Your task to perform on an android device: Do I have any events tomorrow? Image 0: 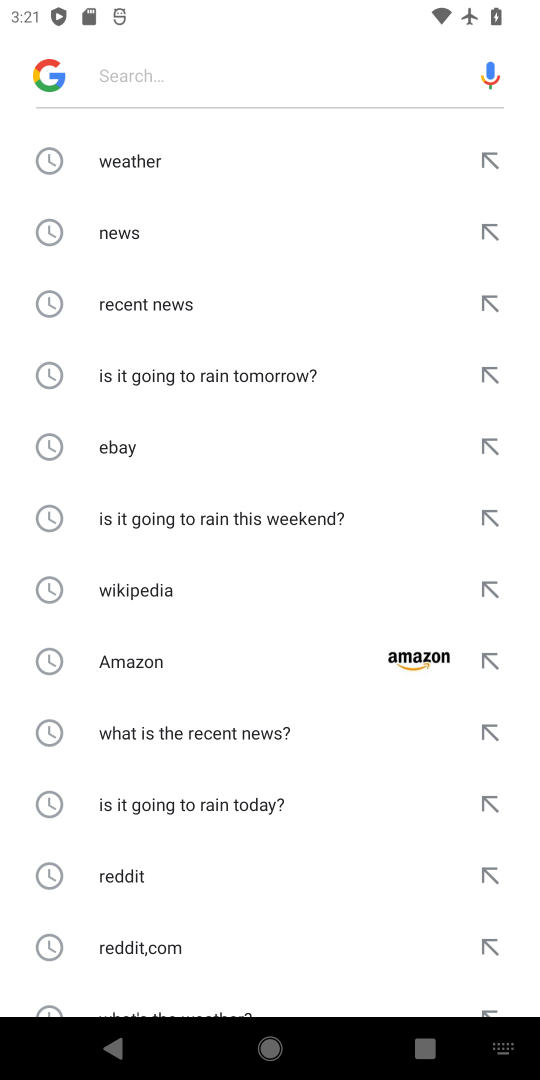
Step 0: press home button
Your task to perform on an android device: Do I have any events tomorrow? Image 1: 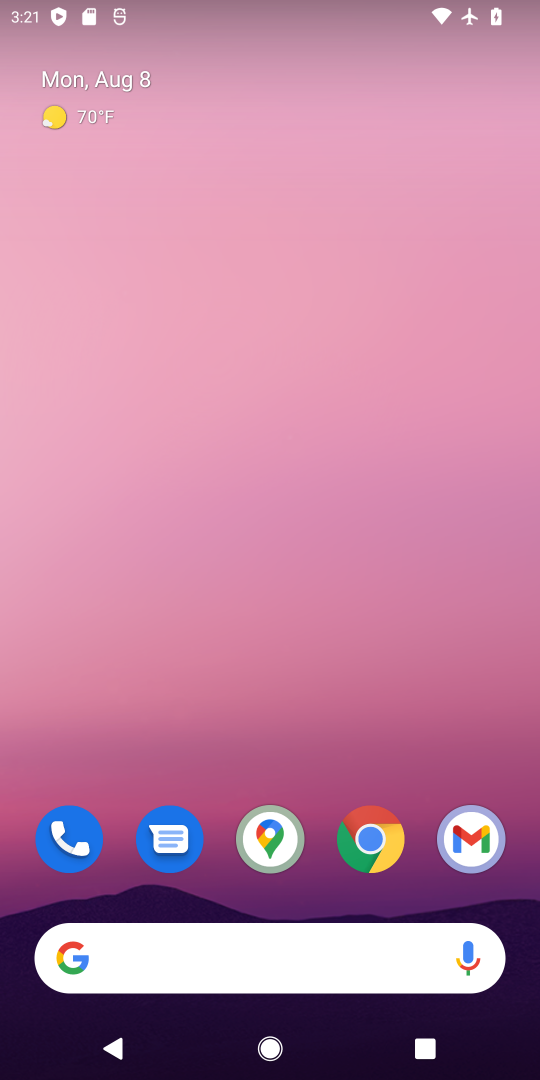
Step 1: drag from (411, 797) to (444, 325)
Your task to perform on an android device: Do I have any events tomorrow? Image 2: 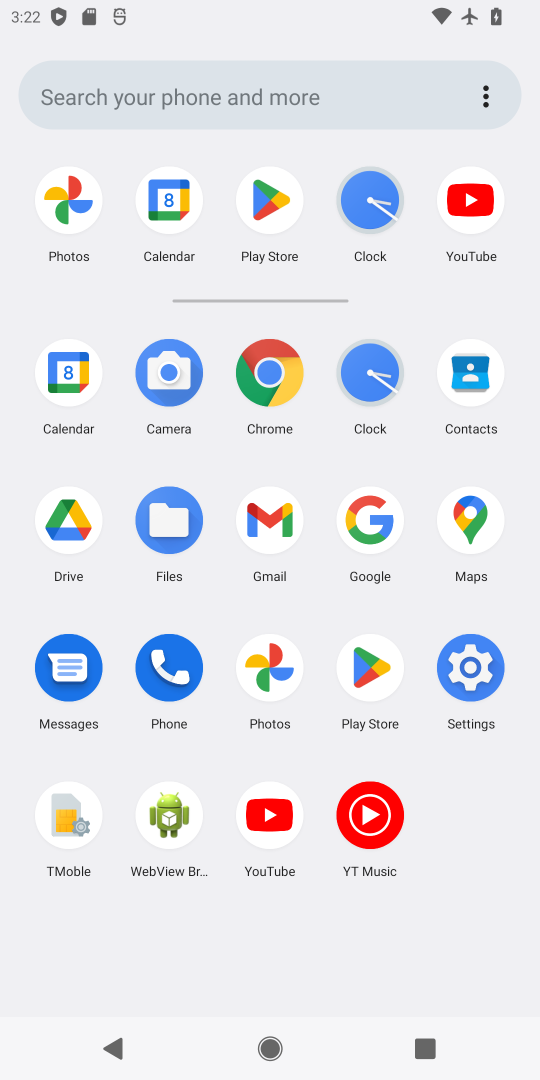
Step 2: click (69, 380)
Your task to perform on an android device: Do I have any events tomorrow? Image 3: 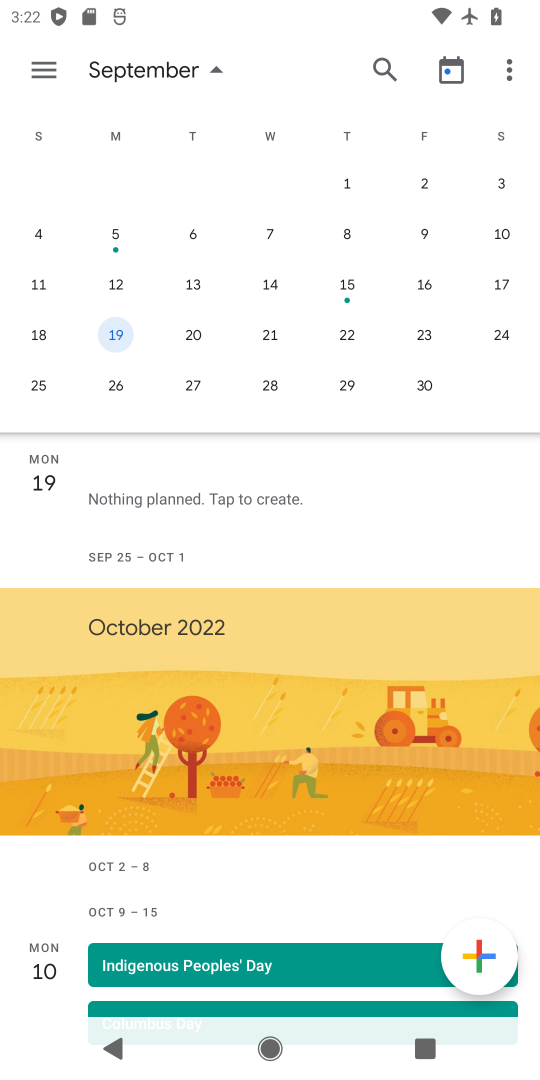
Step 3: drag from (278, 551) to (287, 328)
Your task to perform on an android device: Do I have any events tomorrow? Image 4: 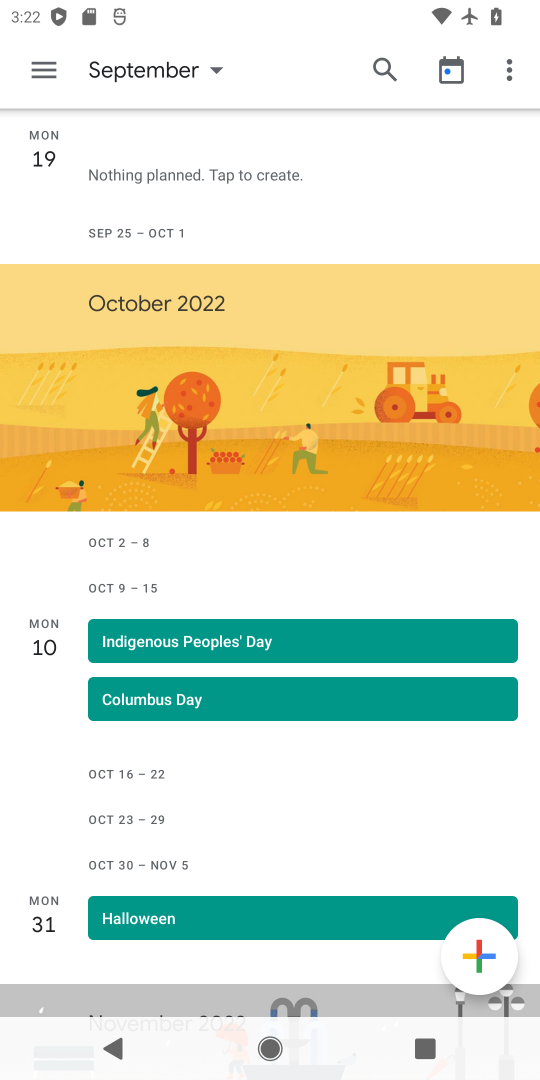
Step 4: drag from (290, 521) to (309, 306)
Your task to perform on an android device: Do I have any events tomorrow? Image 5: 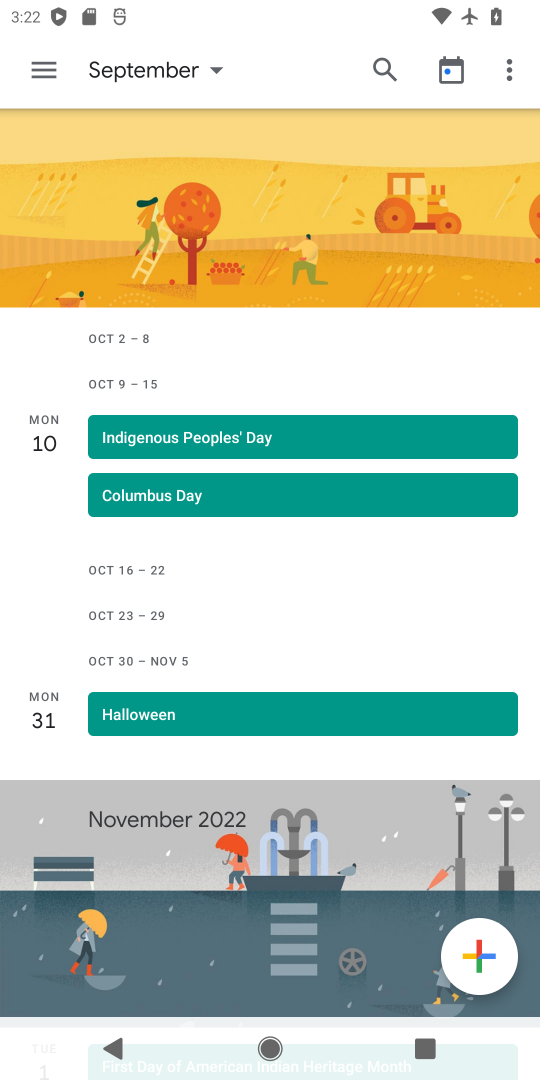
Step 5: drag from (297, 260) to (305, 509)
Your task to perform on an android device: Do I have any events tomorrow? Image 6: 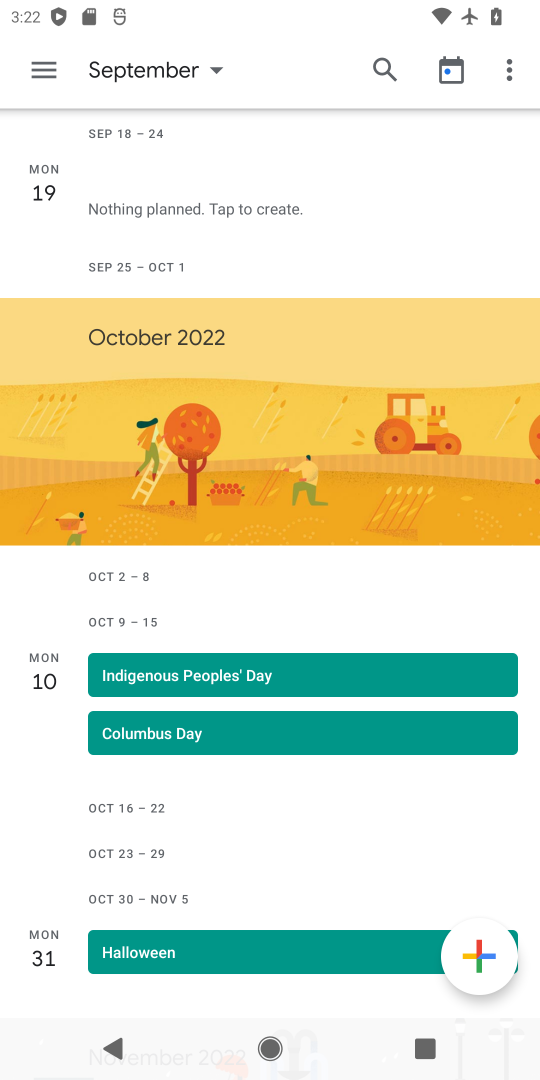
Step 6: drag from (296, 151) to (288, 436)
Your task to perform on an android device: Do I have any events tomorrow? Image 7: 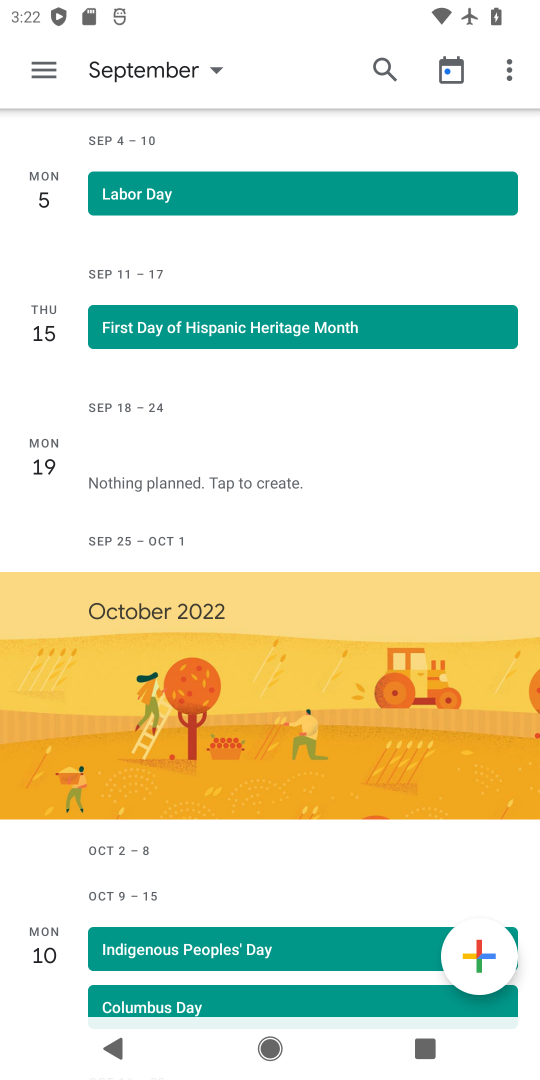
Step 7: drag from (266, 141) to (265, 387)
Your task to perform on an android device: Do I have any events tomorrow? Image 8: 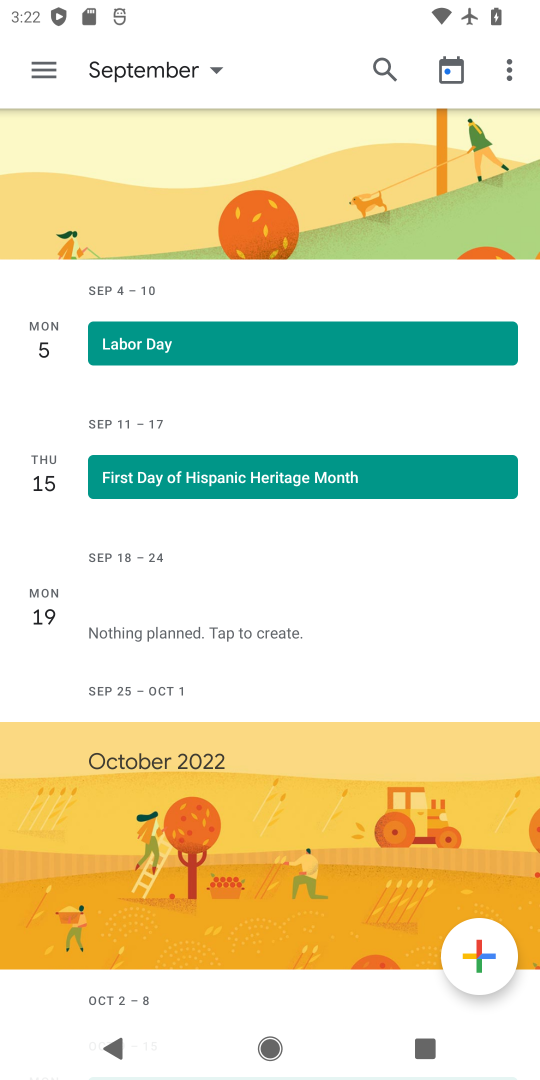
Step 8: drag from (230, 146) to (252, 458)
Your task to perform on an android device: Do I have any events tomorrow? Image 9: 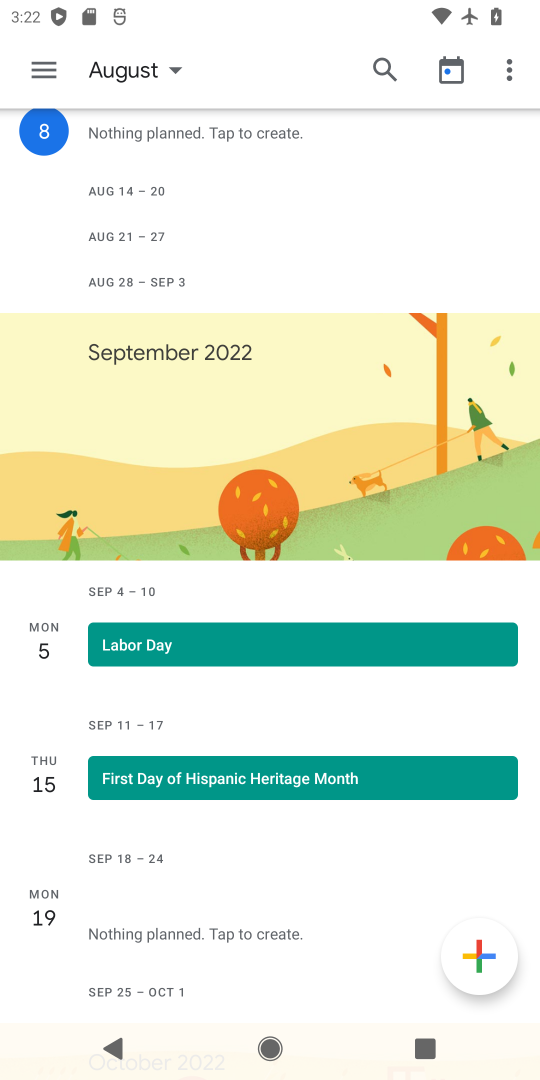
Step 9: drag from (264, 137) to (269, 233)
Your task to perform on an android device: Do I have any events tomorrow? Image 10: 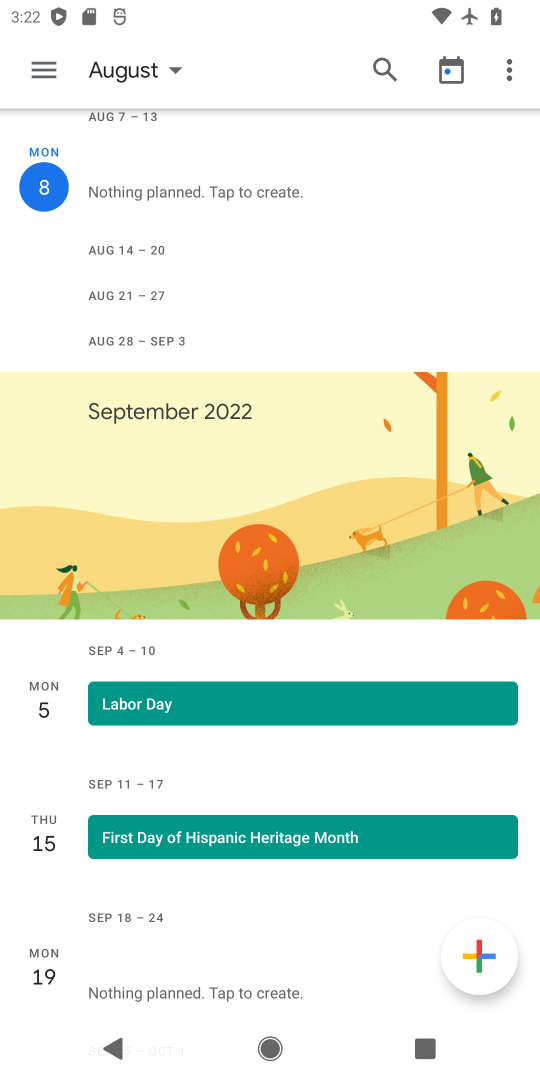
Step 10: click (176, 62)
Your task to perform on an android device: Do I have any events tomorrow? Image 11: 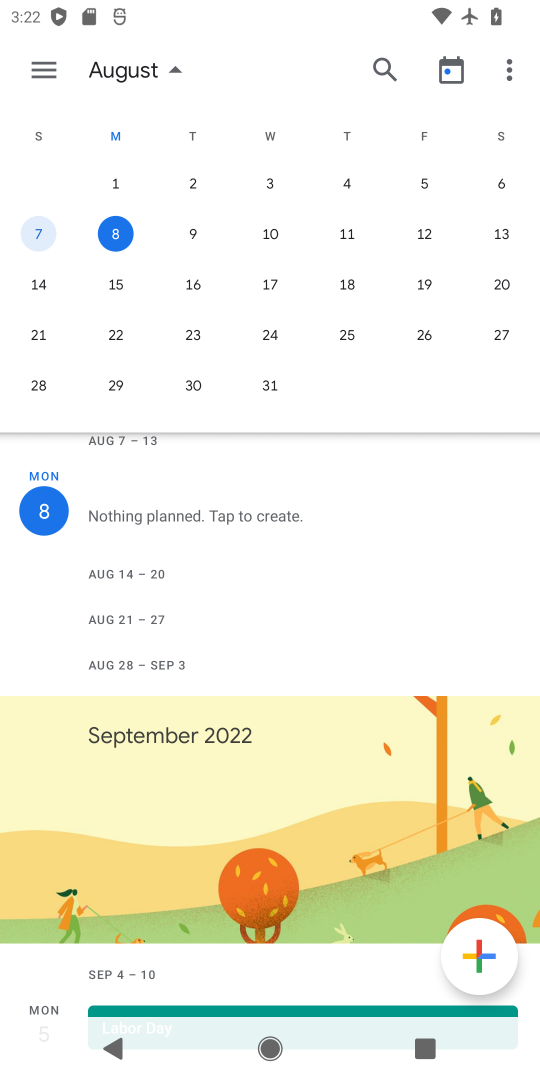
Step 11: click (196, 237)
Your task to perform on an android device: Do I have any events tomorrow? Image 12: 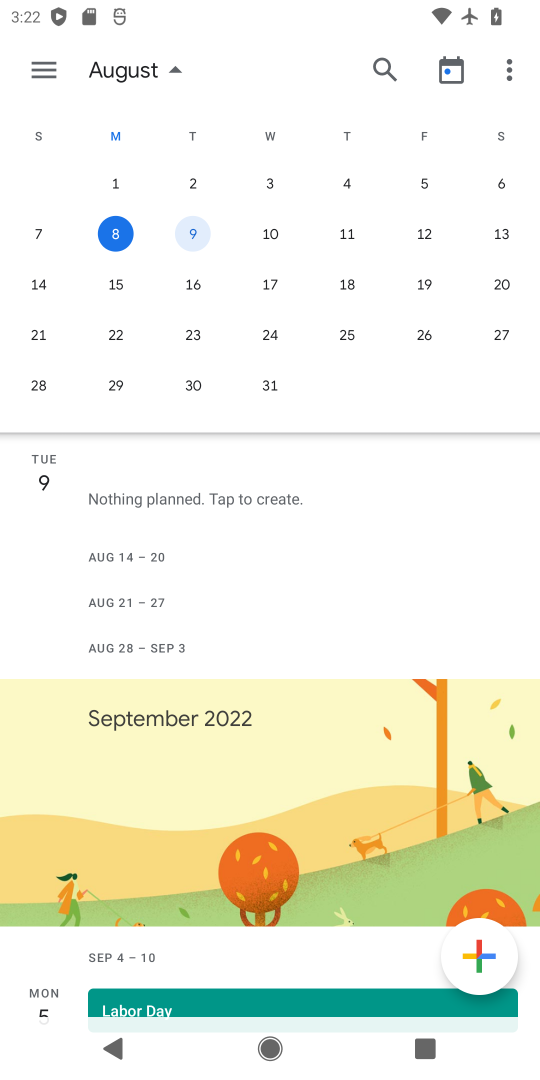
Step 12: task complete